Your task to perform on an android device: Go to Yahoo.com Image 0: 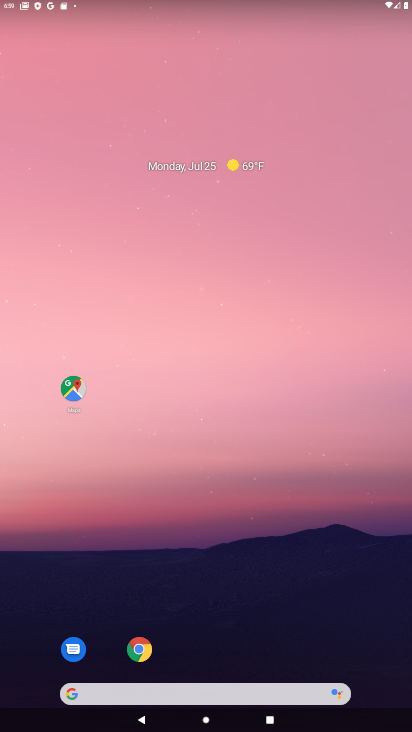
Step 0: drag from (292, 641) to (209, 172)
Your task to perform on an android device: Go to Yahoo.com Image 1: 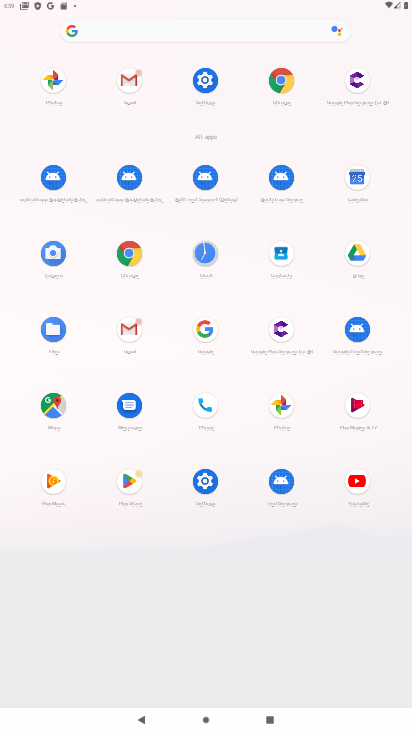
Step 1: click (124, 243)
Your task to perform on an android device: Go to Yahoo.com Image 2: 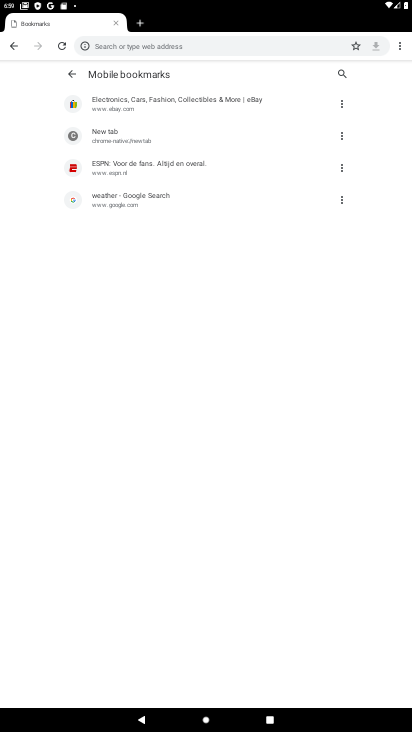
Step 2: click (140, 26)
Your task to perform on an android device: Go to Yahoo.com Image 3: 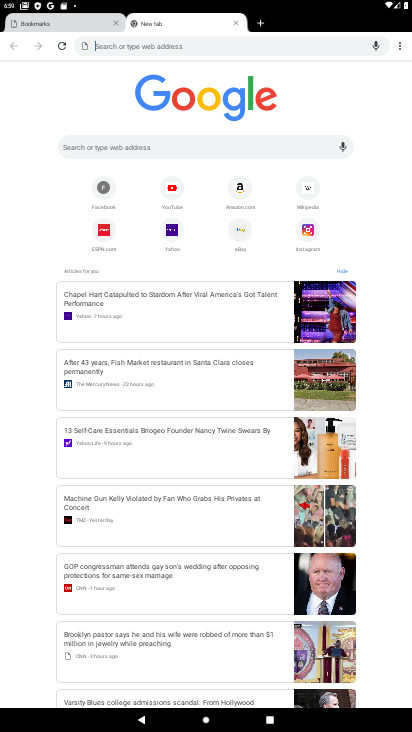
Step 3: click (170, 229)
Your task to perform on an android device: Go to Yahoo.com Image 4: 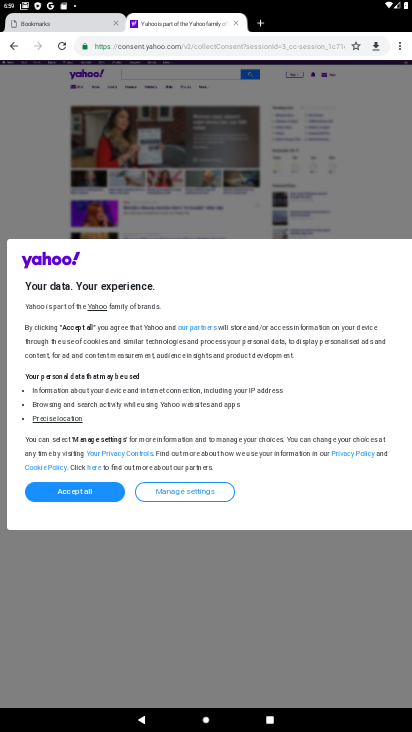
Step 4: drag from (164, 399) to (59, 480)
Your task to perform on an android device: Go to Yahoo.com Image 5: 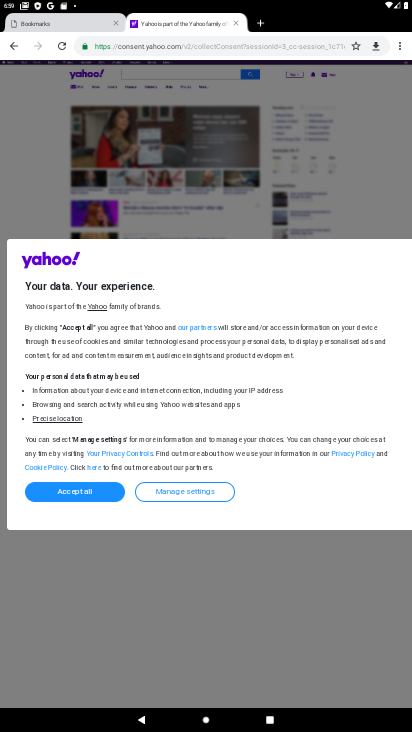
Step 5: drag from (34, 575) to (121, 453)
Your task to perform on an android device: Go to Yahoo.com Image 6: 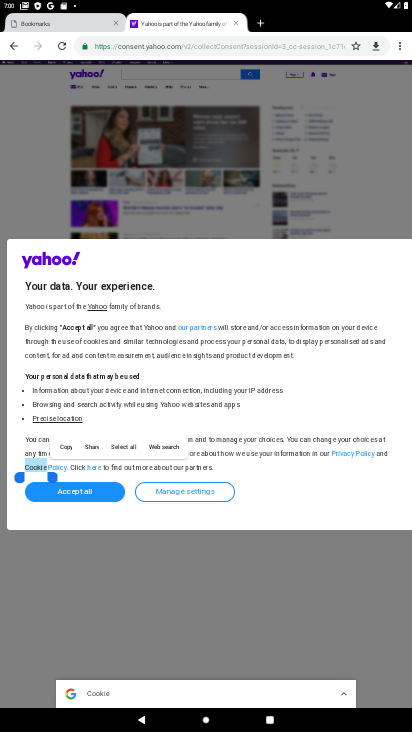
Step 6: click (73, 499)
Your task to perform on an android device: Go to Yahoo.com Image 7: 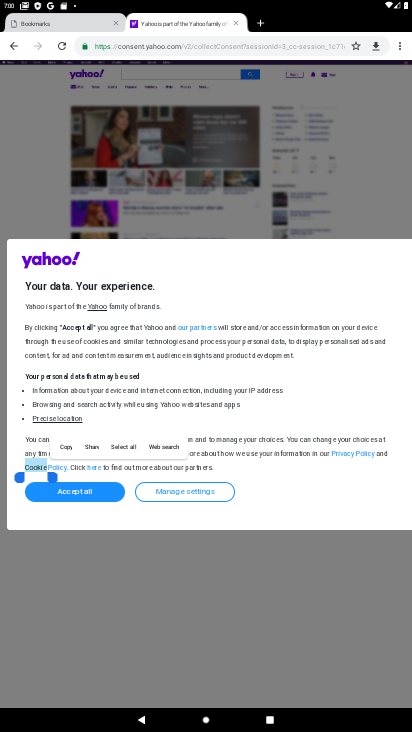
Step 7: click (77, 487)
Your task to perform on an android device: Go to Yahoo.com Image 8: 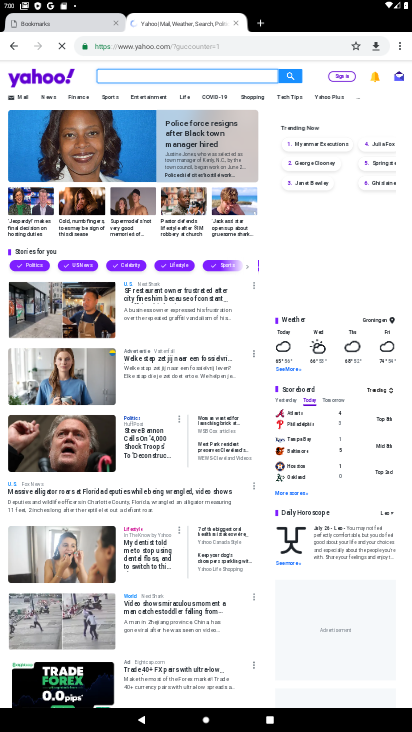
Step 8: task complete